Your task to perform on an android device: create a new album in the google photos Image 0: 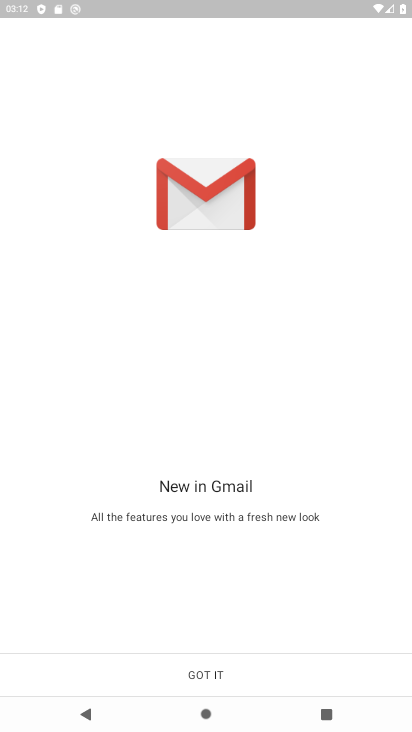
Step 0: press home button
Your task to perform on an android device: create a new album in the google photos Image 1: 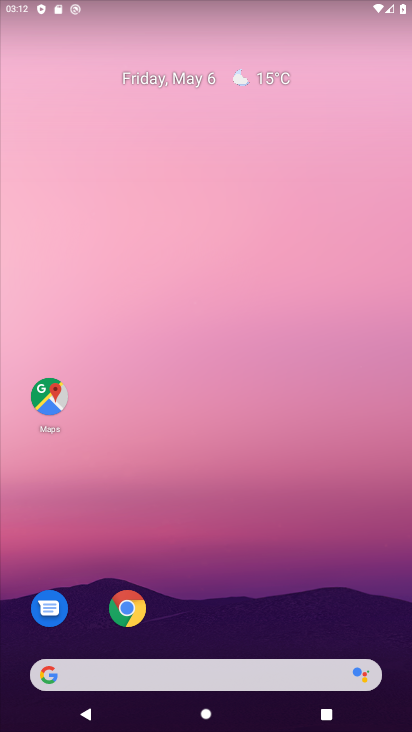
Step 1: drag from (160, 664) to (164, 78)
Your task to perform on an android device: create a new album in the google photos Image 2: 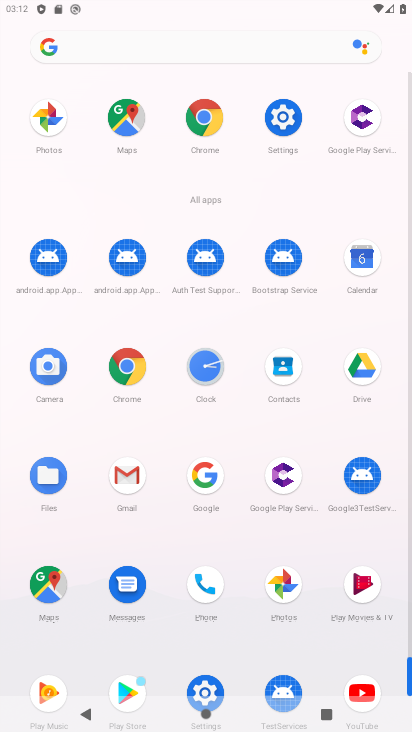
Step 2: click (281, 602)
Your task to perform on an android device: create a new album in the google photos Image 3: 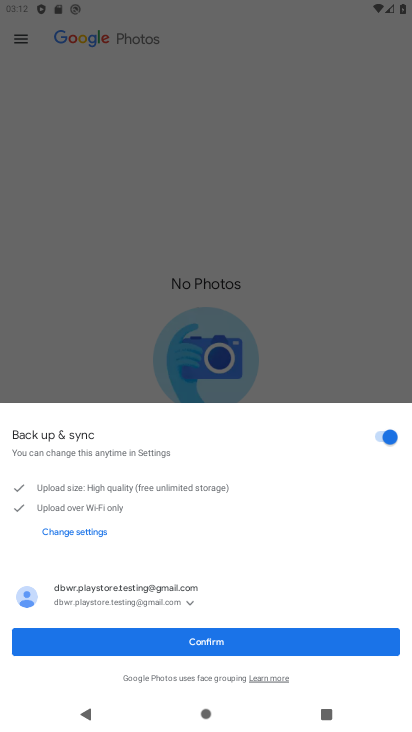
Step 3: click (236, 647)
Your task to perform on an android device: create a new album in the google photos Image 4: 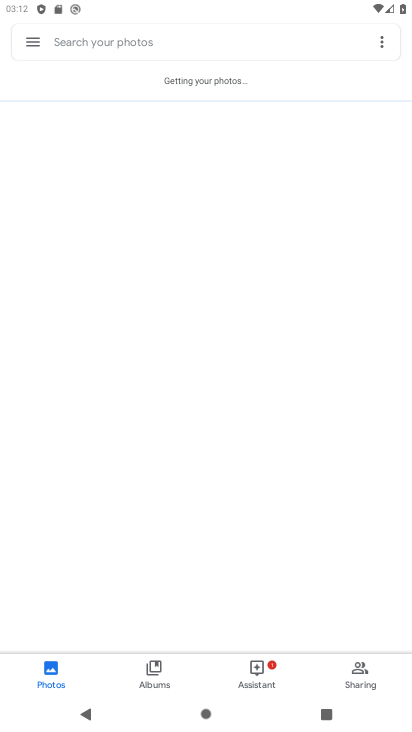
Step 4: click (150, 679)
Your task to perform on an android device: create a new album in the google photos Image 5: 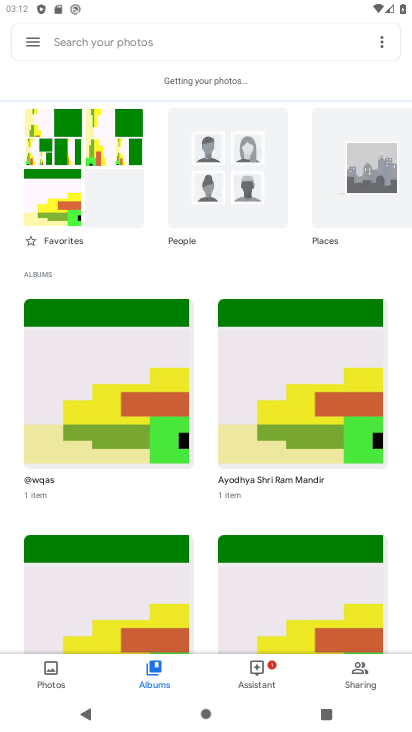
Step 5: click (261, 670)
Your task to perform on an android device: create a new album in the google photos Image 6: 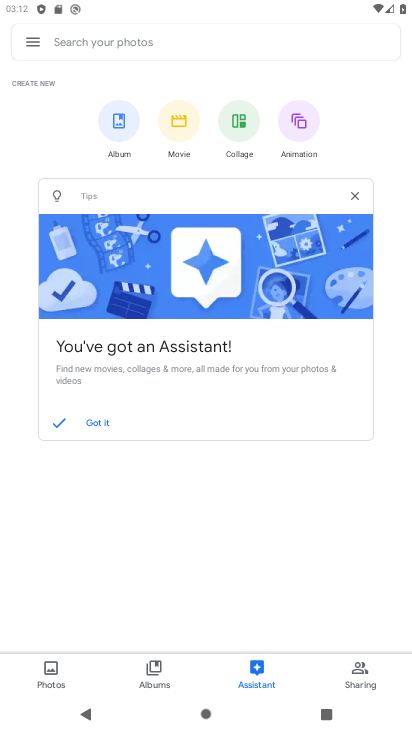
Step 6: click (123, 131)
Your task to perform on an android device: create a new album in the google photos Image 7: 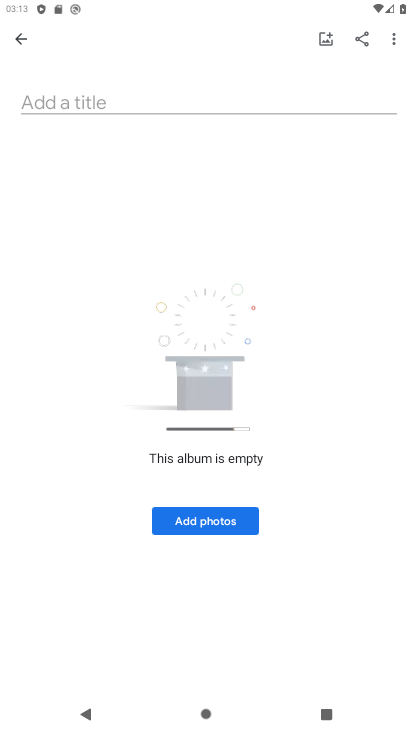
Step 7: click (235, 521)
Your task to perform on an android device: create a new album in the google photos Image 8: 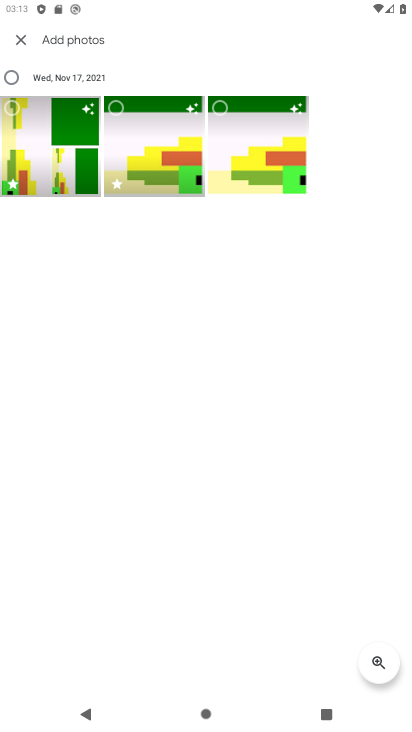
Step 8: click (25, 118)
Your task to perform on an android device: create a new album in the google photos Image 9: 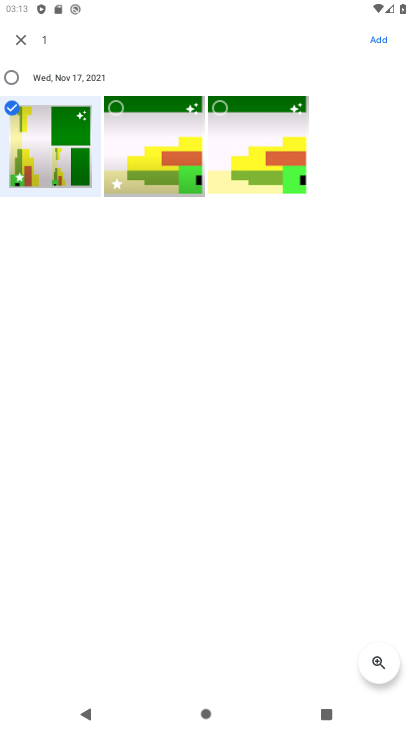
Step 9: click (114, 130)
Your task to perform on an android device: create a new album in the google photos Image 10: 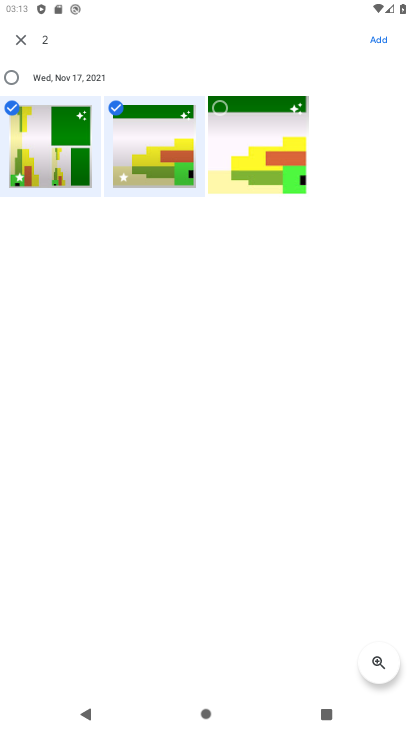
Step 10: click (186, 137)
Your task to perform on an android device: create a new album in the google photos Image 11: 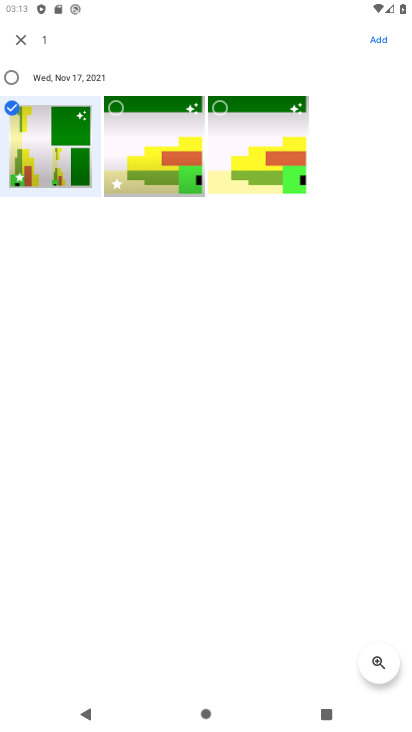
Step 11: click (230, 146)
Your task to perform on an android device: create a new album in the google photos Image 12: 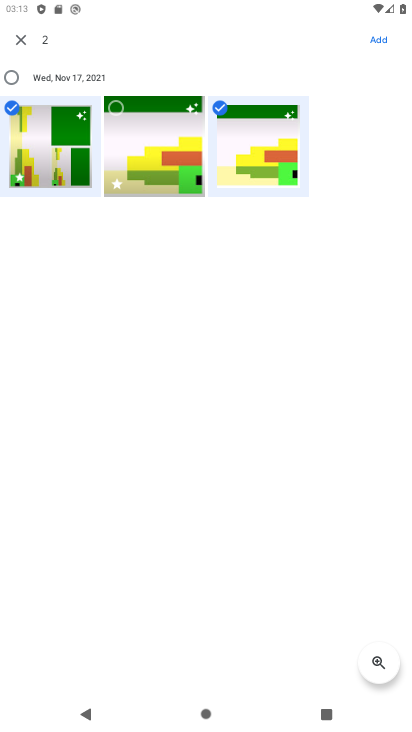
Step 12: click (142, 167)
Your task to perform on an android device: create a new album in the google photos Image 13: 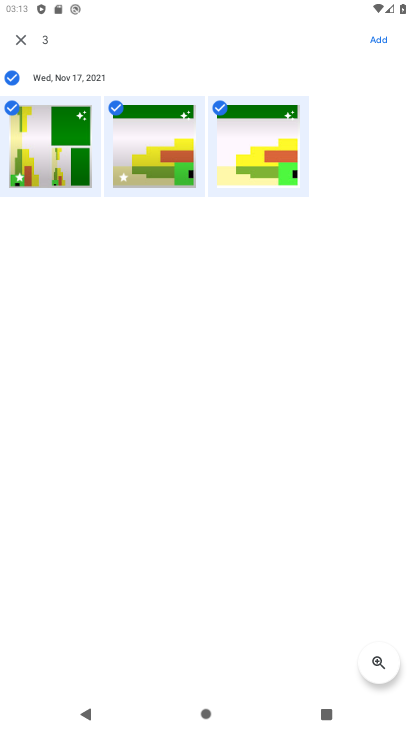
Step 13: click (379, 46)
Your task to perform on an android device: create a new album in the google photos Image 14: 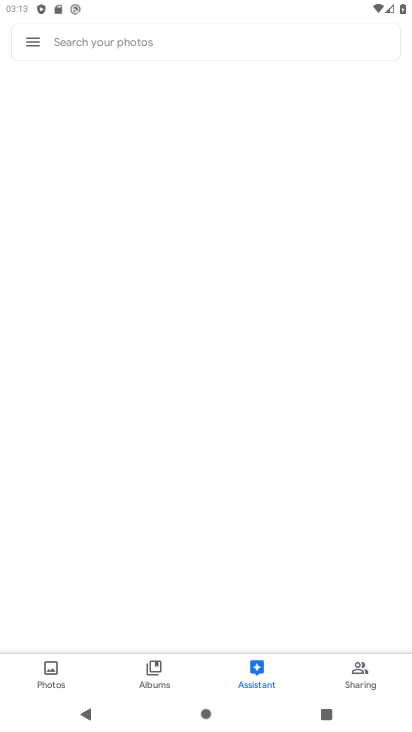
Step 14: task complete